Your task to perform on an android device: make emails show in primary in the gmail app Image 0: 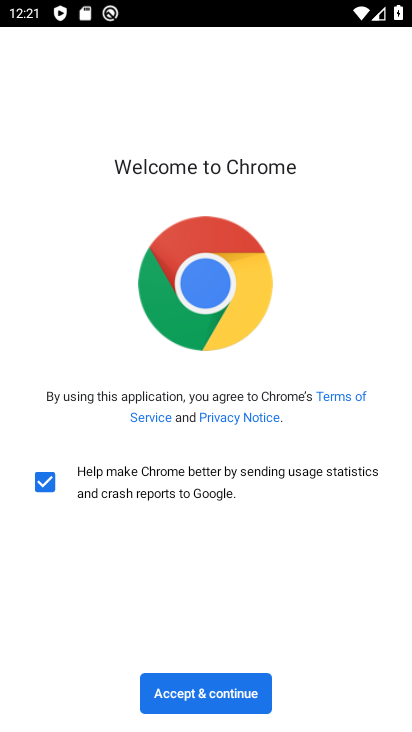
Step 0: press home button
Your task to perform on an android device: make emails show in primary in the gmail app Image 1: 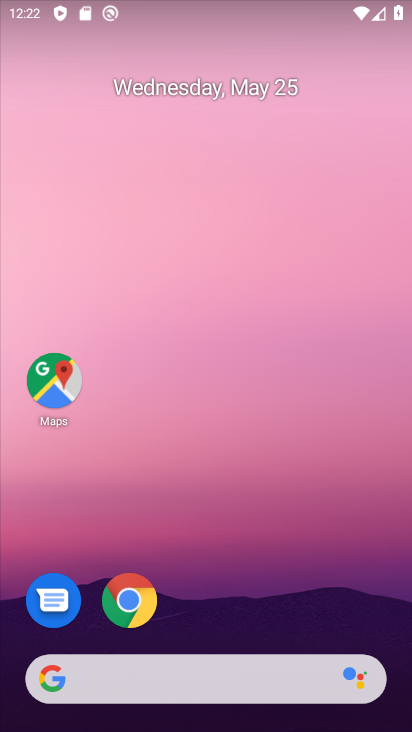
Step 1: drag from (222, 621) to (190, 69)
Your task to perform on an android device: make emails show in primary in the gmail app Image 2: 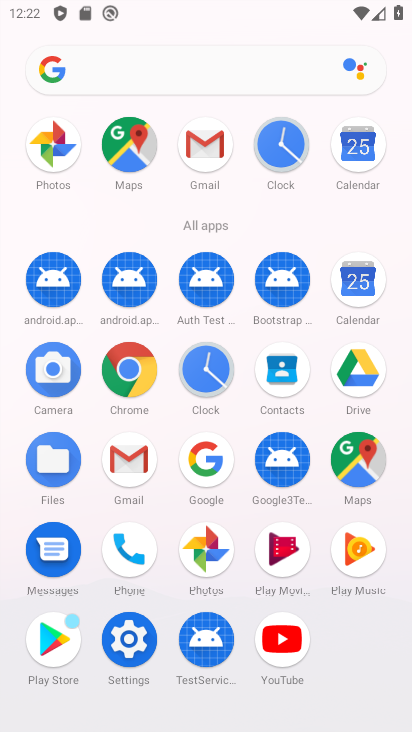
Step 2: click (201, 140)
Your task to perform on an android device: make emails show in primary in the gmail app Image 3: 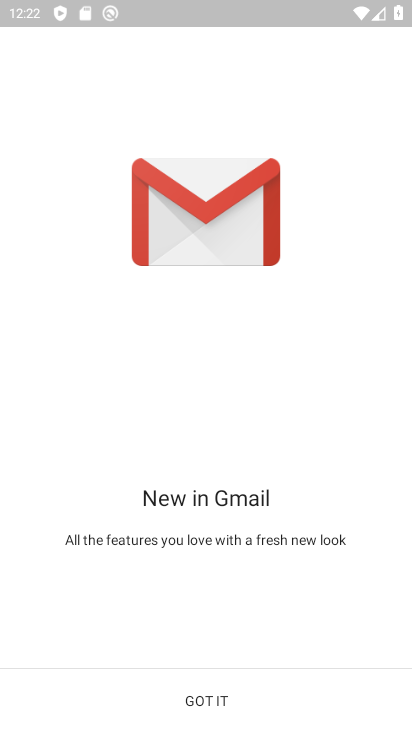
Step 3: click (214, 703)
Your task to perform on an android device: make emails show in primary in the gmail app Image 4: 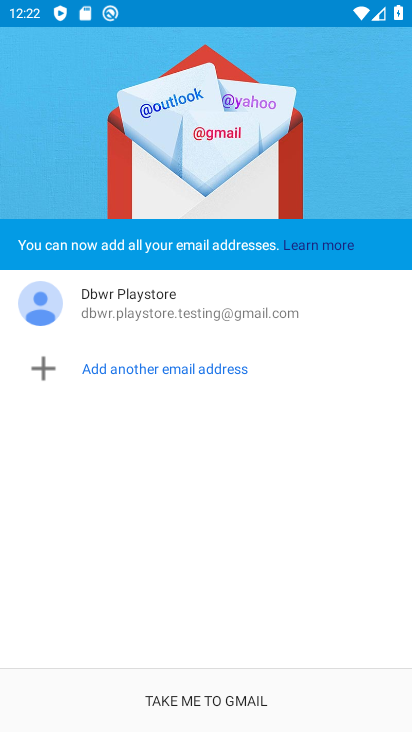
Step 4: click (214, 703)
Your task to perform on an android device: make emails show in primary in the gmail app Image 5: 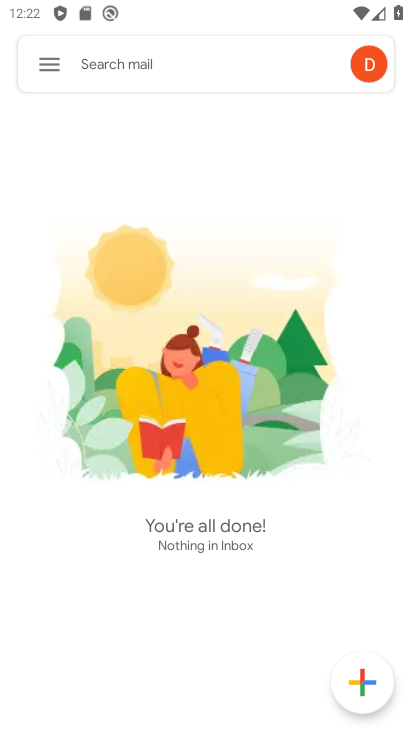
Step 5: click (48, 58)
Your task to perform on an android device: make emails show in primary in the gmail app Image 6: 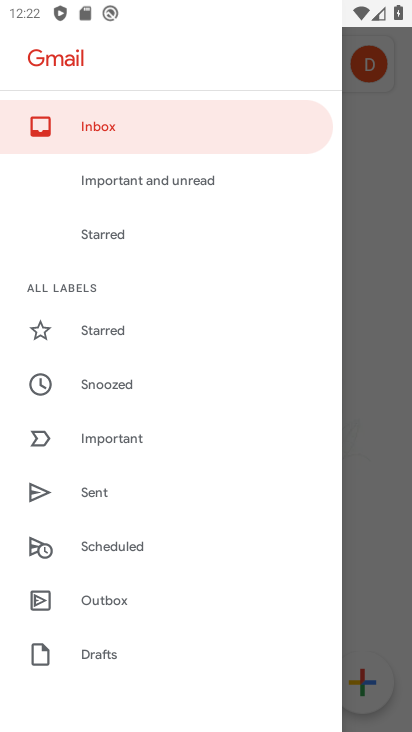
Step 6: drag from (118, 634) to (105, 212)
Your task to perform on an android device: make emails show in primary in the gmail app Image 7: 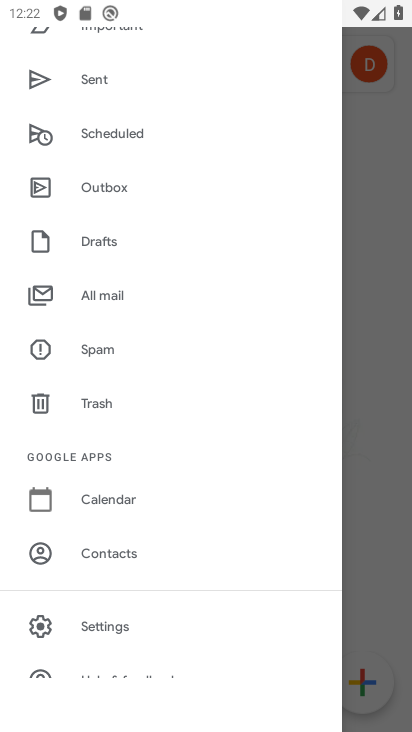
Step 7: click (125, 623)
Your task to perform on an android device: make emails show in primary in the gmail app Image 8: 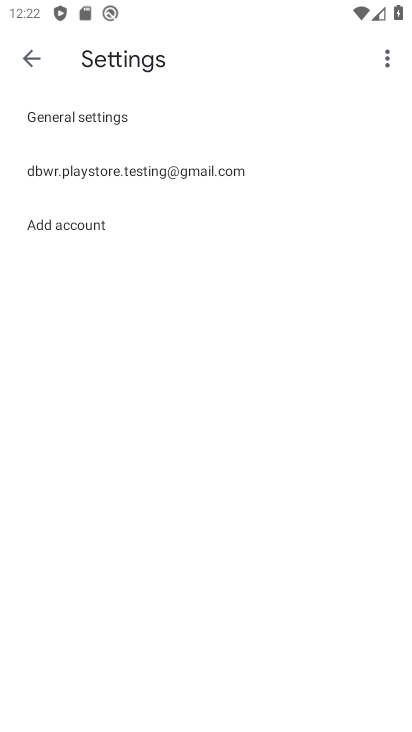
Step 8: click (189, 166)
Your task to perform on an android device: make emails show in primary in the gmail app Image 9: 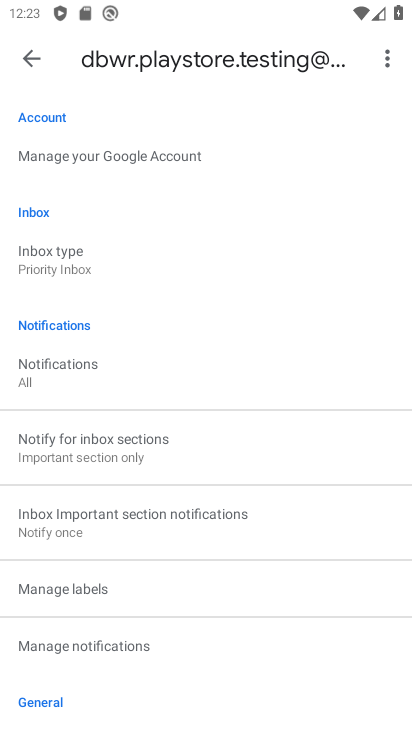
Step 9: click (168, 280)
Your task to perform on an android device: make emails show in primary in the gmail app Image 10: 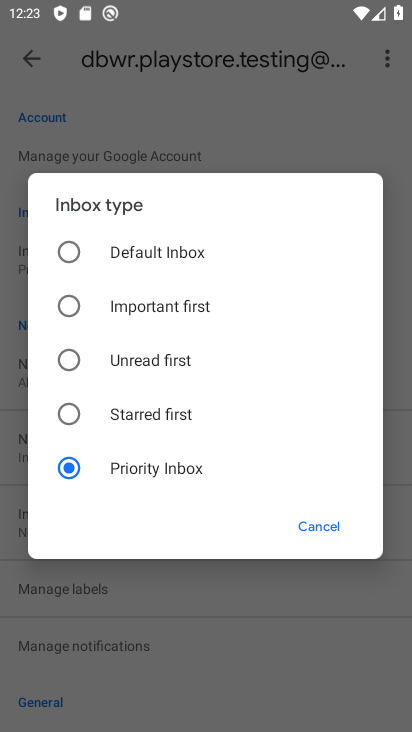
Step 10: click (168, 254)
Your task to perform on an android device: make emails show in primary in the gmail app Image 11: 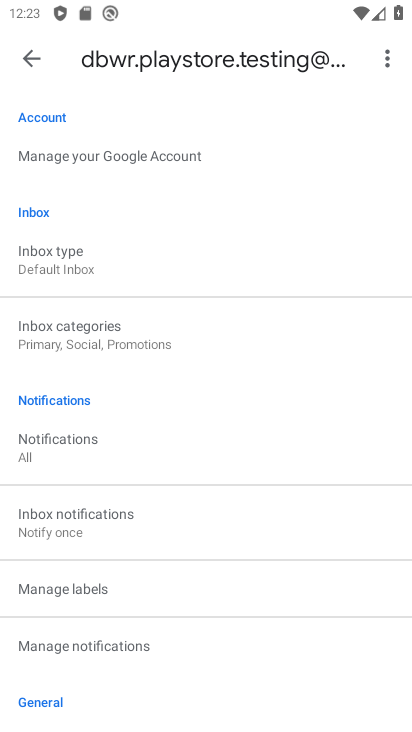
Step 11: task complete